Your task to perform on an android device: What's the weather going to be this weekend? Image 0: 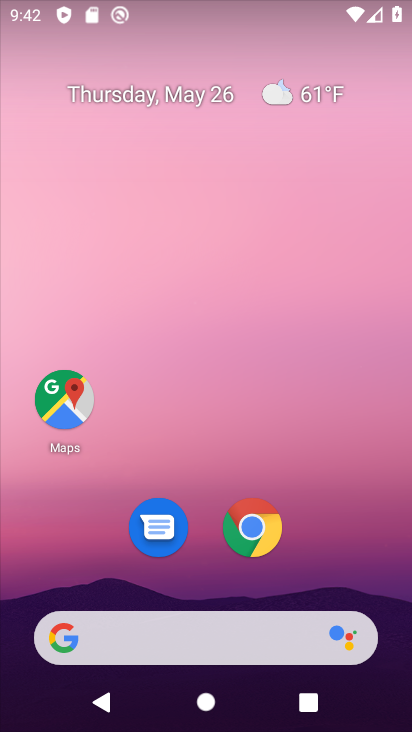
Step 0: click (299, 97)
Your task to perform on an android device: What's the weather going to be this weekend? Image 1: 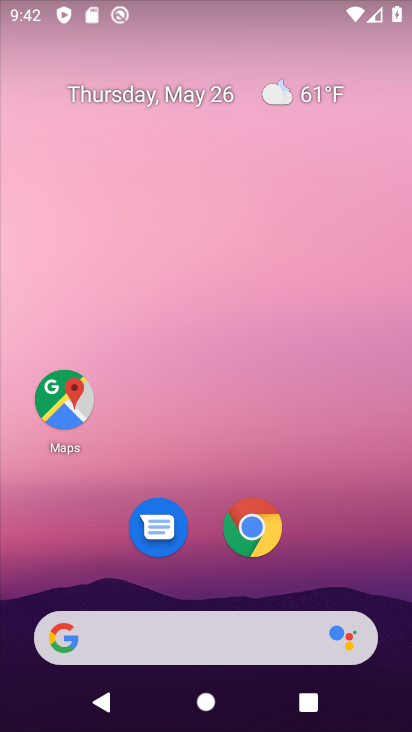
Step 1: click (284, 90)
Your task to perform on an android device: What's the weather going to be this weekend? Image 2: 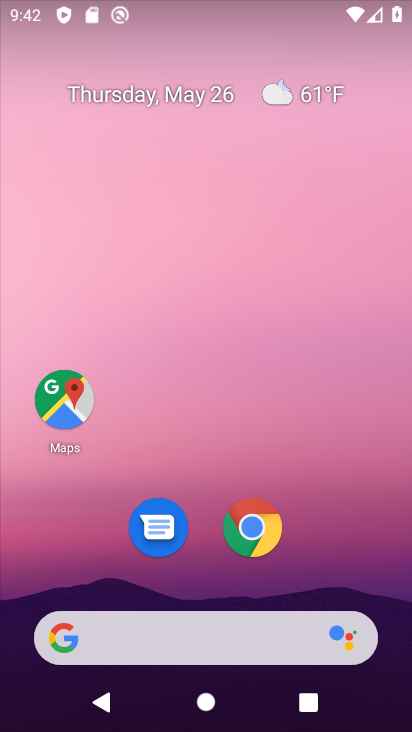
Step 2: click (284, 90)
Your task to perform on an android device: What's the weather going to be this weekend? Image 3: 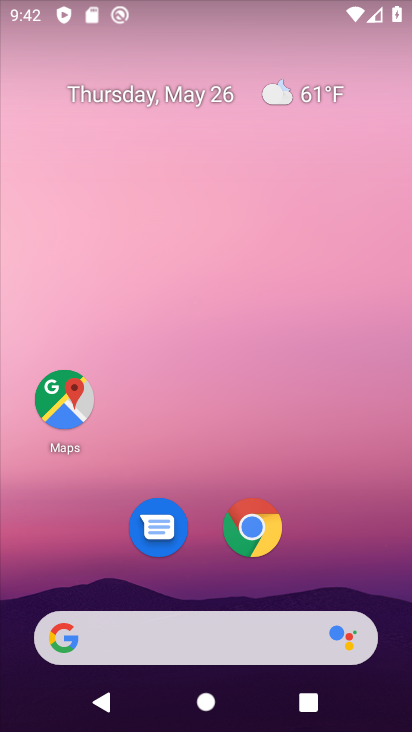
Step 3: click (279, 95)
Your task to perform on an android device: What's the weather going to be this weekend? Image 4: 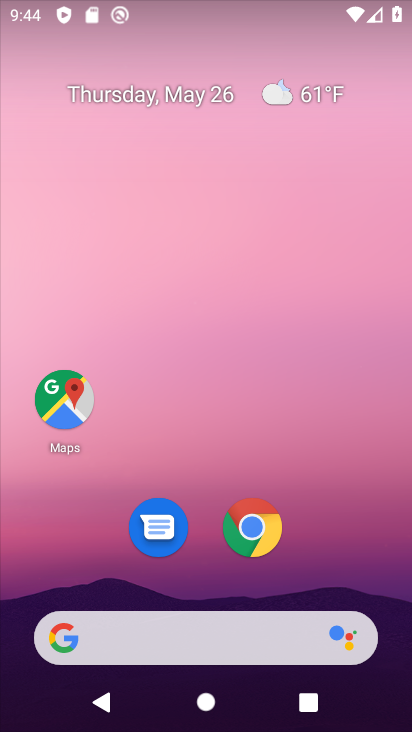
Step 4: click (269, 87)
Your task to perform on an android device: What's the weather going to be this weekend? Image 5: 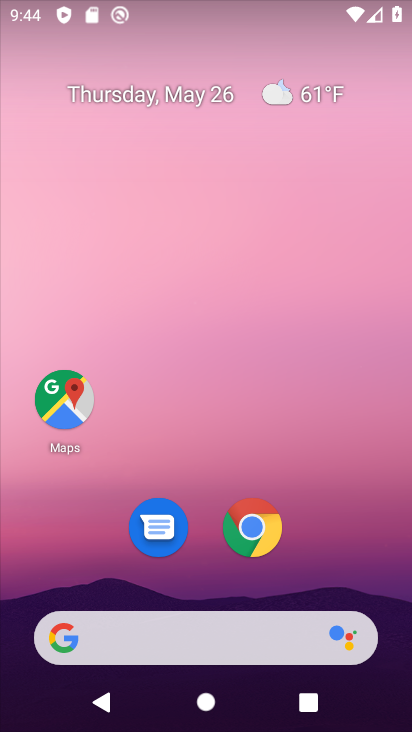
Step 5: click (273, 87)
Your task to perform on an android device: What's the weather going to be this weekend? Image 6: 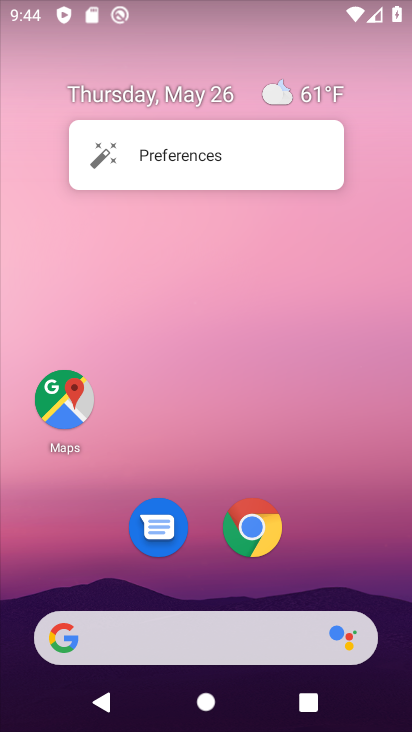
Step 6: click (270, 95)
Your task to perform on an android device: What's the weather going to be this weekend? Image 7: 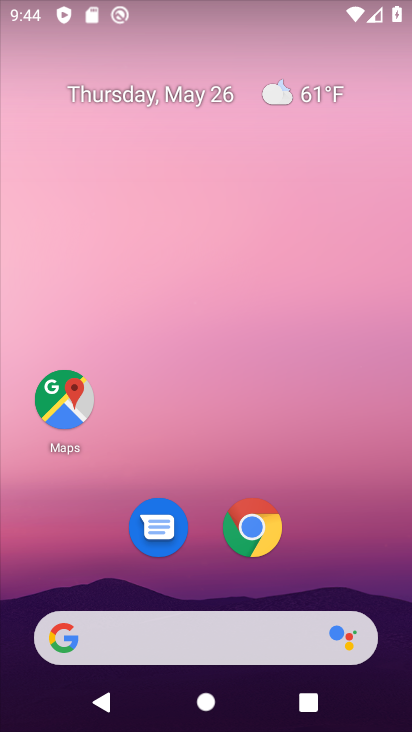
Step 7: drag from (247, 533) to (228, 88)
Your task to perform on an android device: What's the weather going to be this weekend? Image 8: 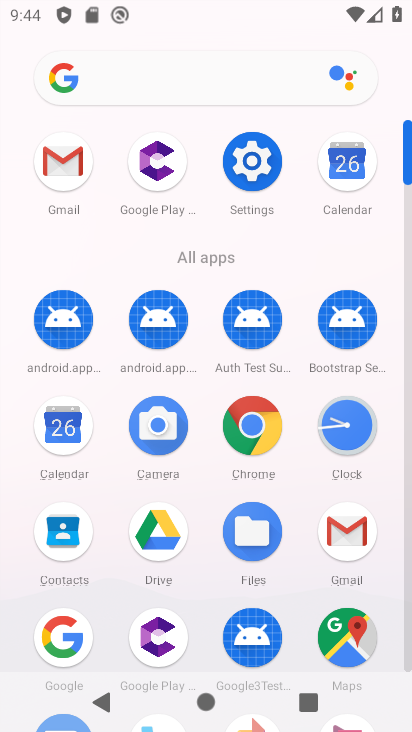
Step 8: click (162, 85)
Your task to perform on an android device: What's the weather going to be this weekend? Image 9: 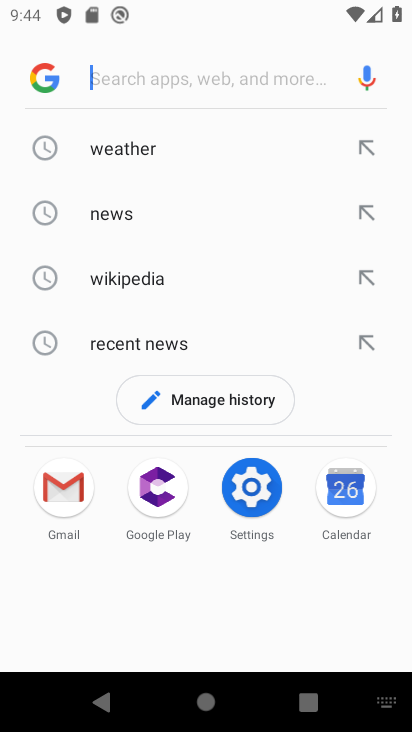
Step 9: click (131, 138)
Your task to perform on an android device: What's the weather going to be this weekend? Image 10: 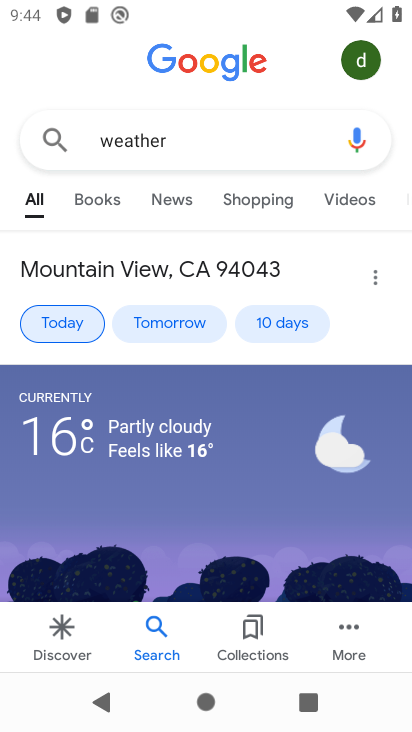
Step 10: click (284, 317)
Your task to perform on an android device: What's the weather going to be this weekend? Image 11: 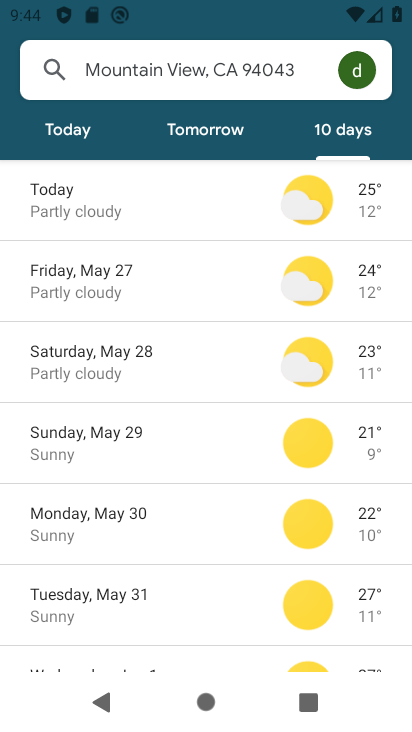
Step 11: task complete